Your task to perform on an android device: change keyboard looks Image 0: 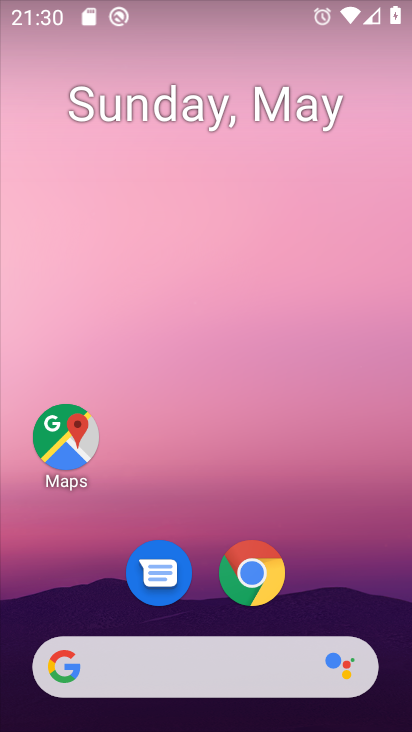
Step 0: drag from (220, 496) to (247, 11)
Your task to perform on an android device: change keyboard looks Image 1: 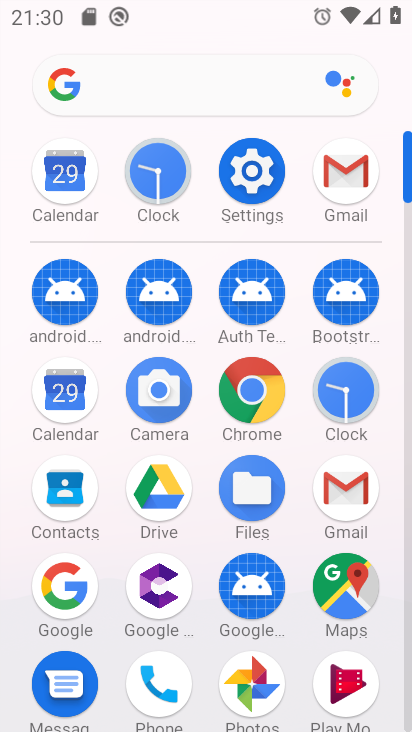
Step 1: click (243, 170)
Your task to perform on an android device: change keyboard looks Image 2: 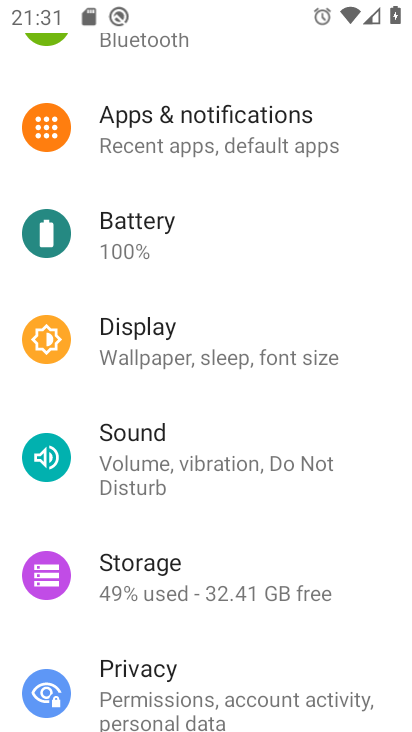
Step 2: drag from (265, 617) to (277, 0)
Your task to perform on an android device: change keyboard looks Image 3: 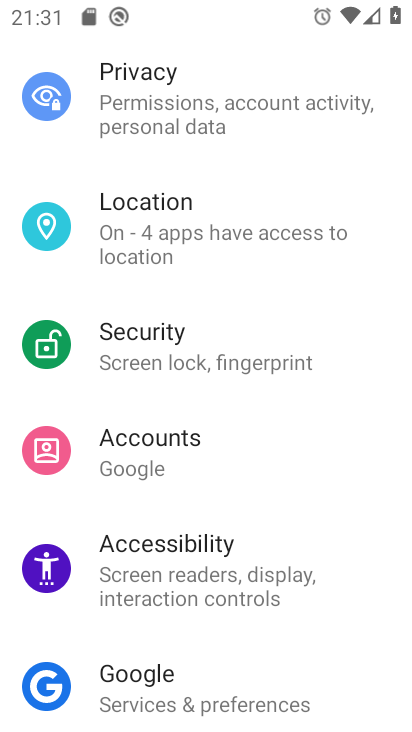
Step 3: drag from (238, 648) to (247, 231)
Your task to perform on an android device: change keyboard looks Image 4: 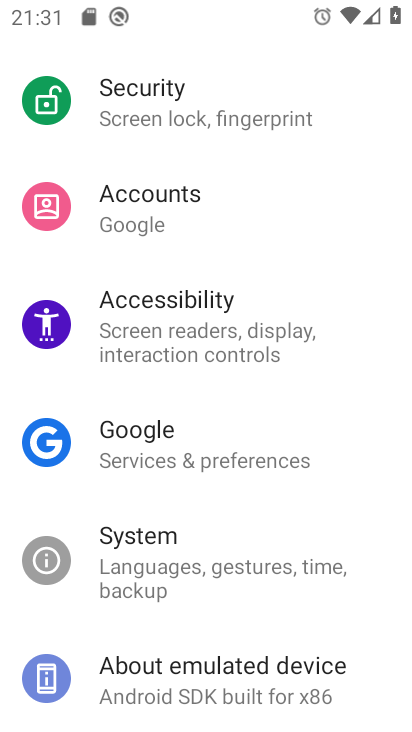
Step 4: click (231, 532)
Your task to perform on an android device: change keyboard looks Image 5: 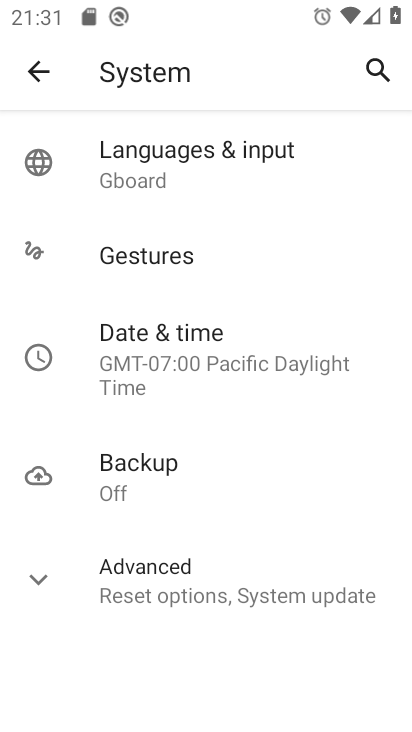
Step 5: click (237, 169)
Your task to perform on an android device: change keyboard looks Image 6: 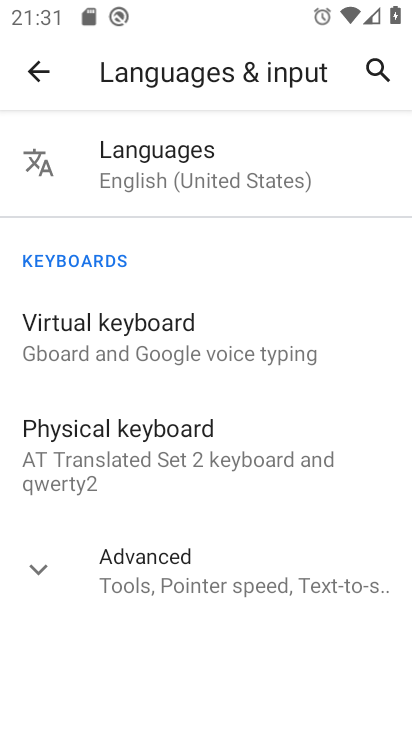
Step 6: click (156, 318)
Your task to perform on an android device: change keyboard looks Image 7: 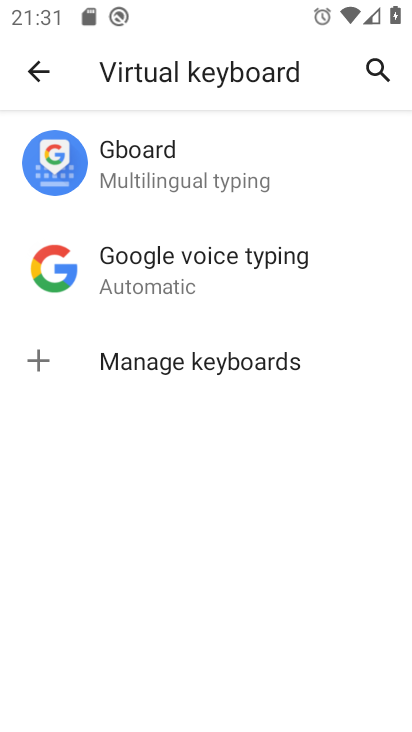
Step 7: click (170, 165)
Your task to perform on an android device: change keyboard looks Image 8: 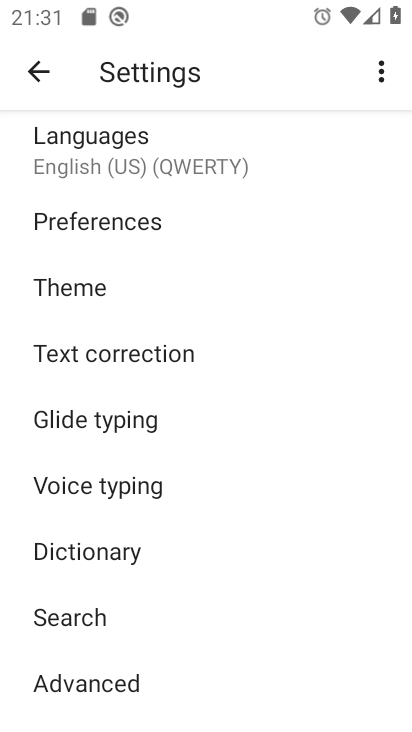
Step 8: click (91, 295)
Your task to perform on an android device: change keyboard looks Image 9: 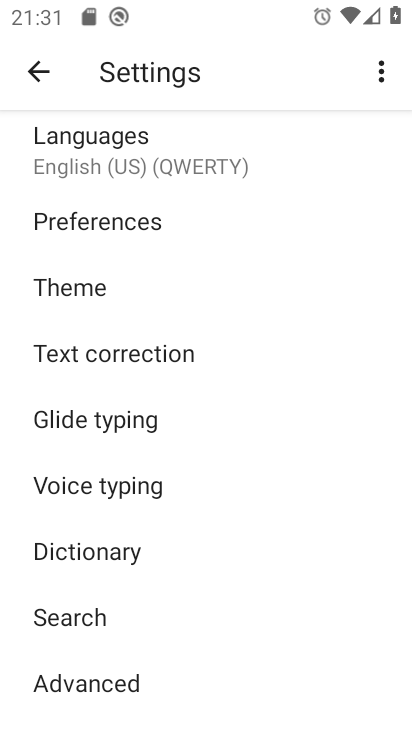
Step 9: click (101, 288)
Your task to perform on an android device: change keyboard looks Image 10: 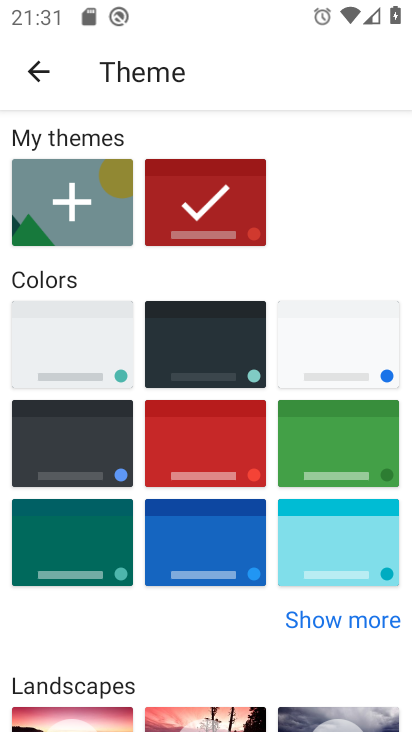
Step 10: click (93, 341)
Your task to perform on an android device: change keyboard looks Image 11: 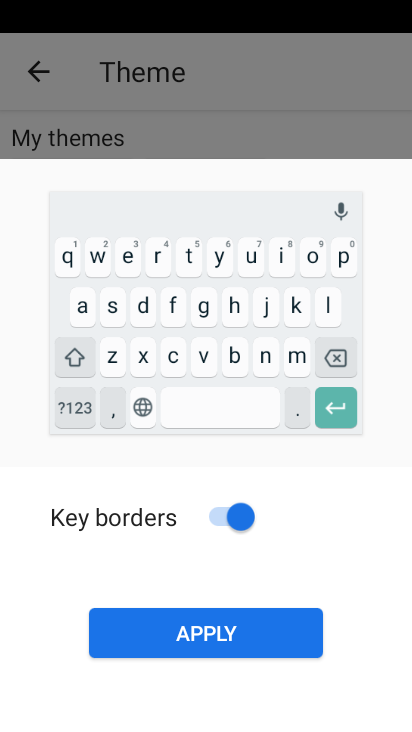
Step 11: click (268, 638)
Your task to perform on an android device: change keyboard looks Image 12: 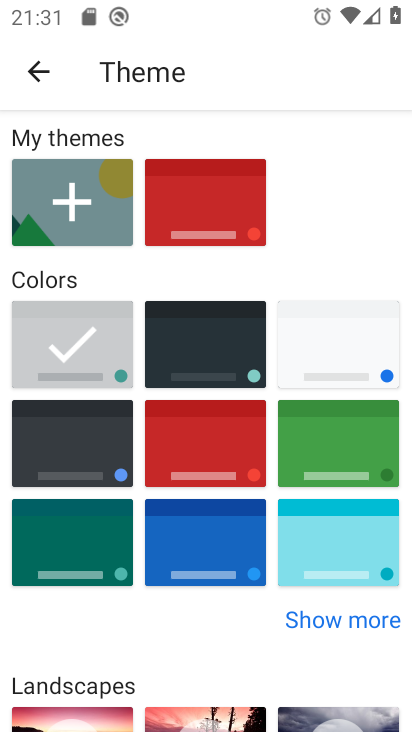
Step 12: task complete